Your task to perform on an android device: turn smart compose on in the gmail app Image 0: 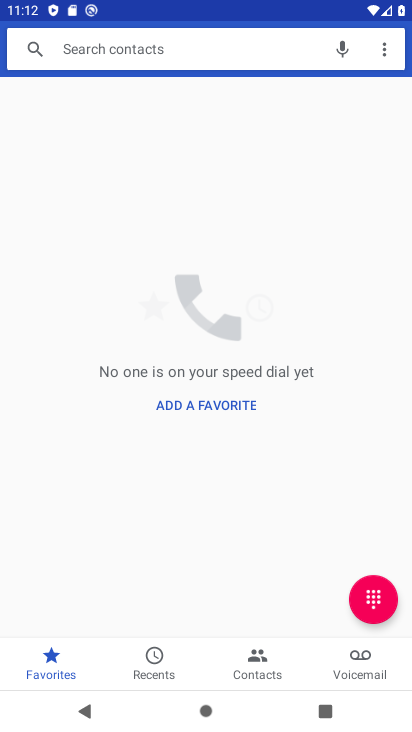
Step 0: press home button
Your task to perform on an android device: turn smart compose on in the gmail app Image 1: 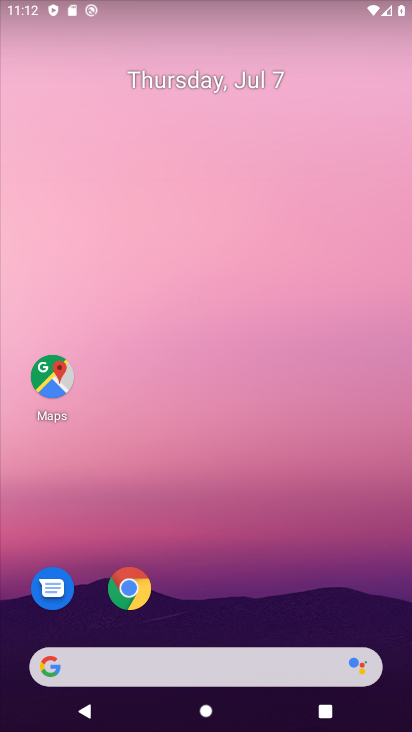
Step 1: drag from (237, 604) to (260, 91)
Your task to perform on an android device: turn smart compose on in the gmail app Image 2: 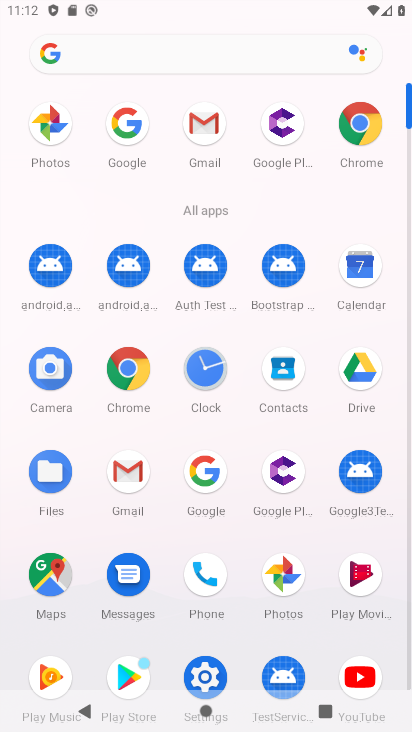
Step 2: click (204, 123)
Your task to perform on an android device: turn smart compose on in the gmail app Image 3: 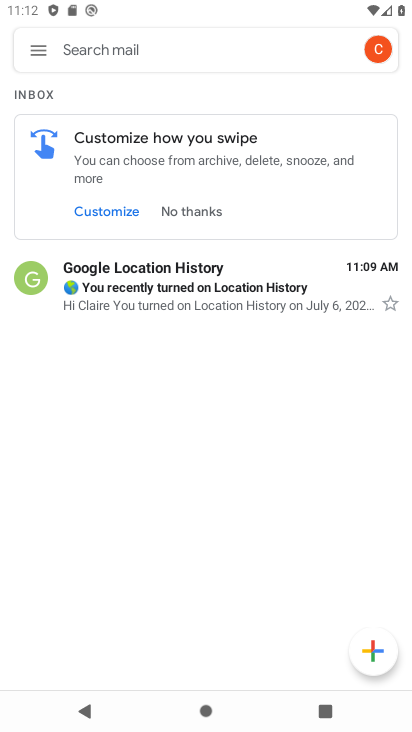
Step 3: click (373, 51)
Your task to perform on an android device: turn smart compose on in the gmail app Image 4: 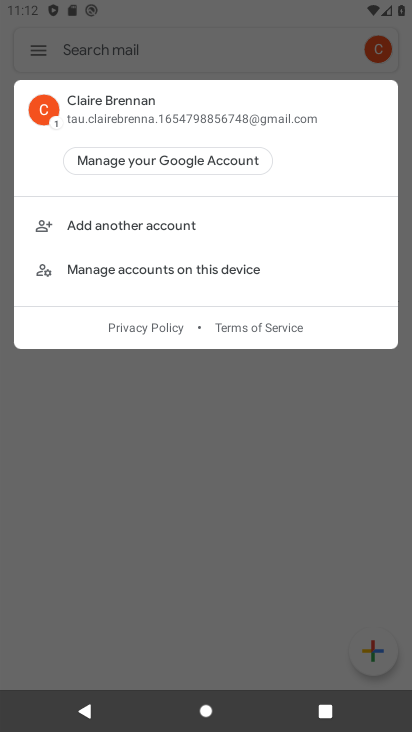
Step 4: click (203, 431)
Your task to perform on an android device: turn smart compose on in the gmail app Image 5: 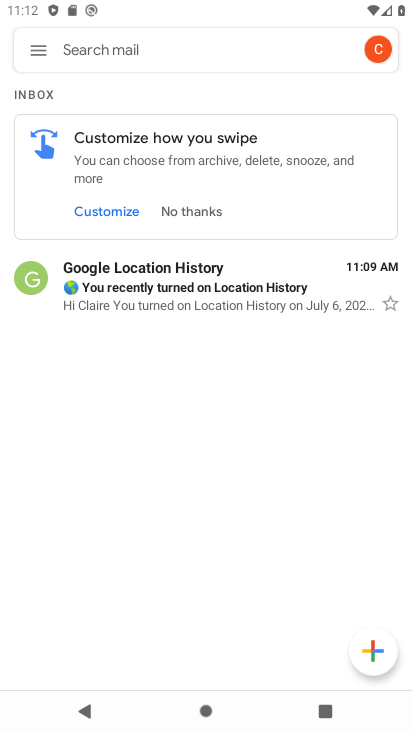
Step 5: click (29, 49)
Your task to perform on an android device: turn smart compose on in the gmail app Image 6: 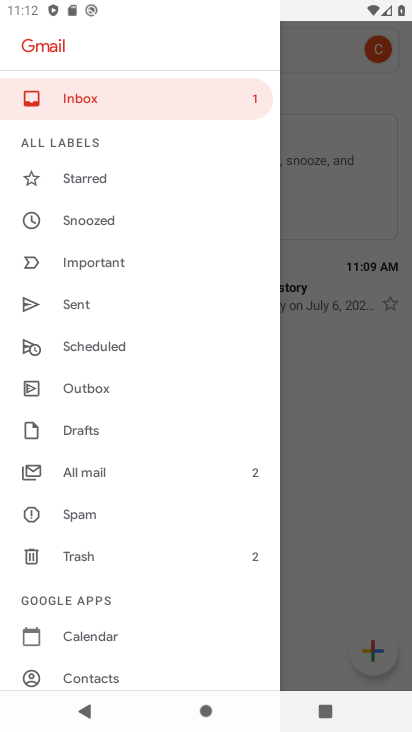
Step 6: drag from (89, 572) to (121, 203)
Your task to perform on an android device: turn smart compose on in the gmail app Image 7: 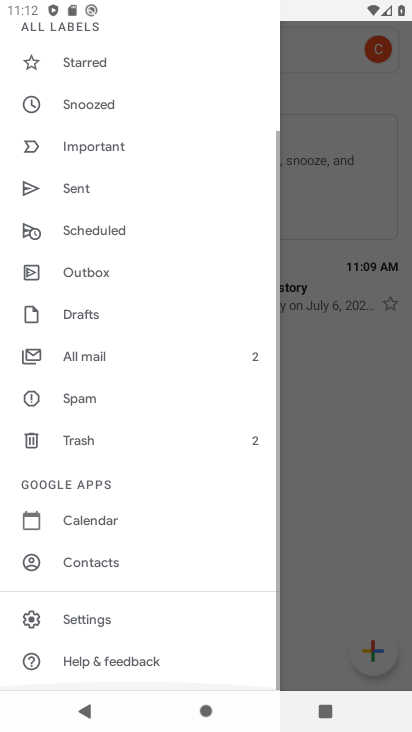
Step 7: click (76, 619)
Your task to perform on an android device: turn smart compose on in the gmail app Image 8: 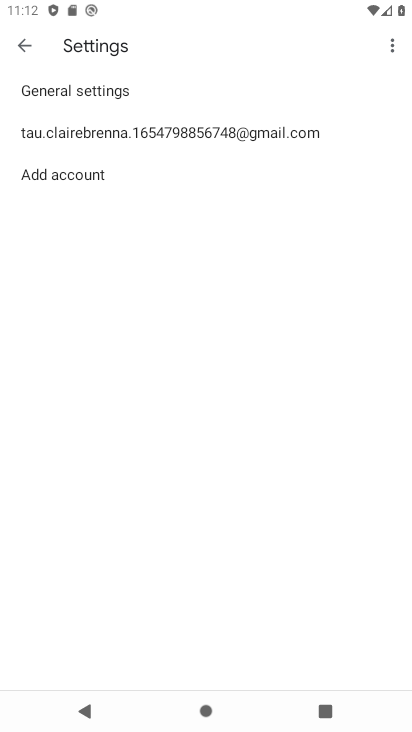
Step 8: click (183, 131)
Your task to perform on an android device: turn smart compose on in the gmail app Image 9: 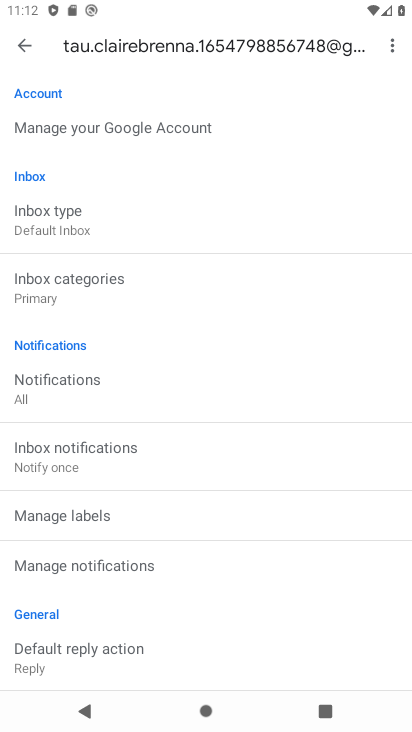
Step 9: task complete